Your task to perform on an android device: make emails show in primary in the gmail app Image 0: 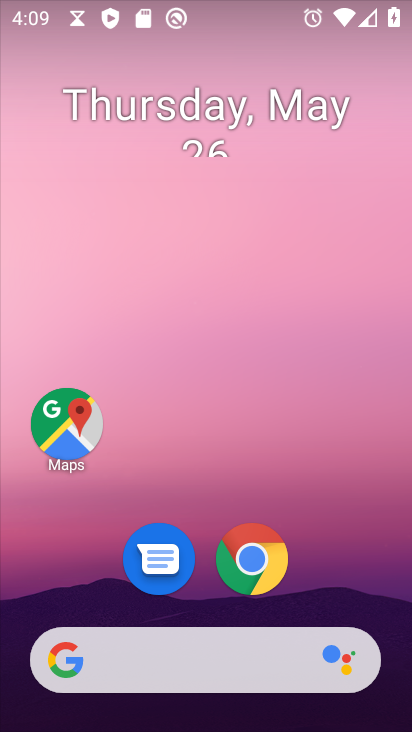
Step 0: press home button
Your task to perform on an android device: make emails show in primary in the gmail app Image 1: 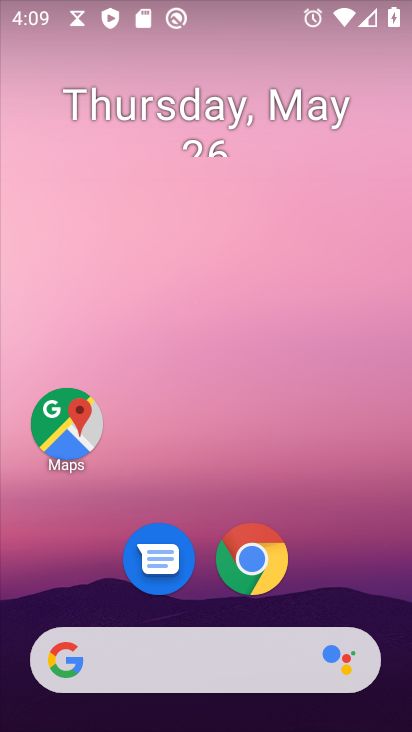
Step 1: drag from (340, 450) to (198, 21)
Your task to perform on an android device: make emails show in primary in the gmail app Image 2: 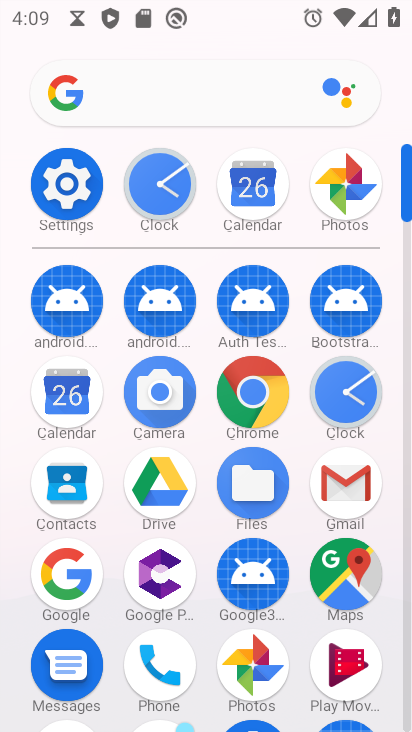
Step 2: click (359, 497)
Your task to perform on an android device: make emails show in primary in the gmail app Image 3: 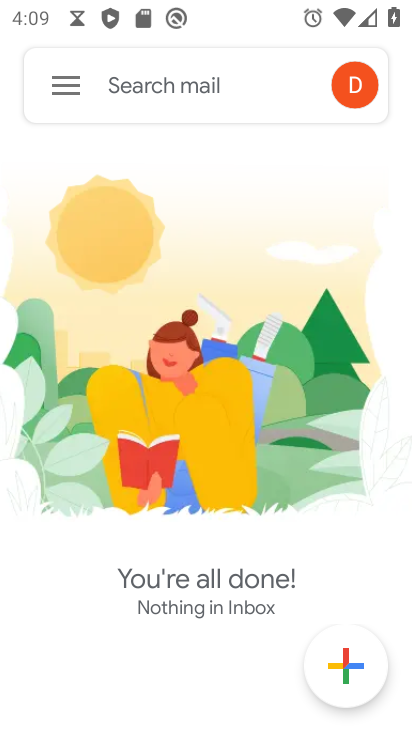
Step 3: click (70, 86)
Your task to perform on an android device: make emails show in primary in the gmail app Image 4: 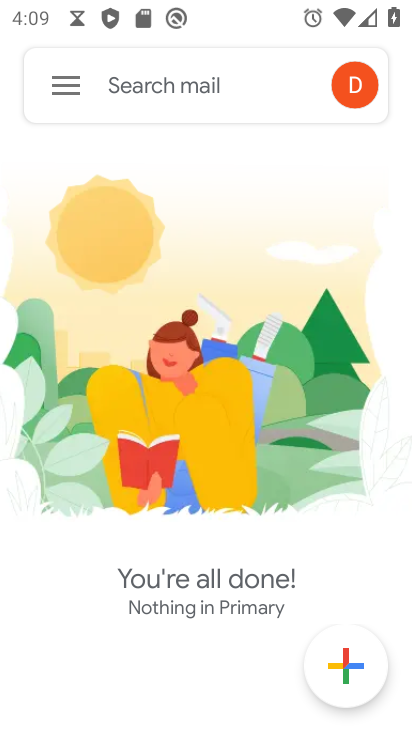
Step 4: click (63, 77)
Your task to perform on an android device: make emails show in primary in the gmail app Image 5: 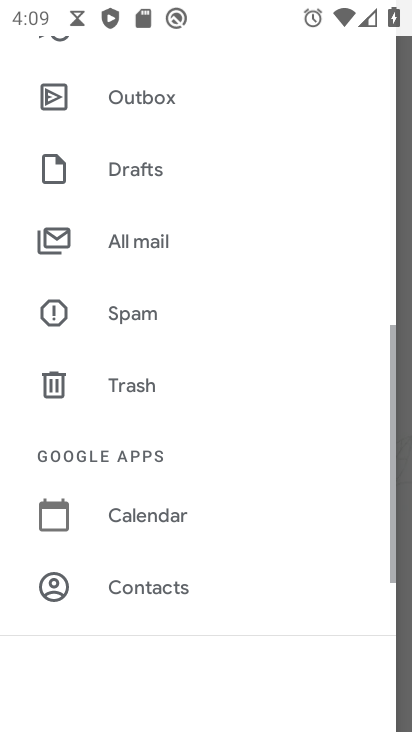
Step 5: drag from (179, 127) to (175, 703)
Your task to perform on an android device: make emails show in primary in the gmail app Image 6: 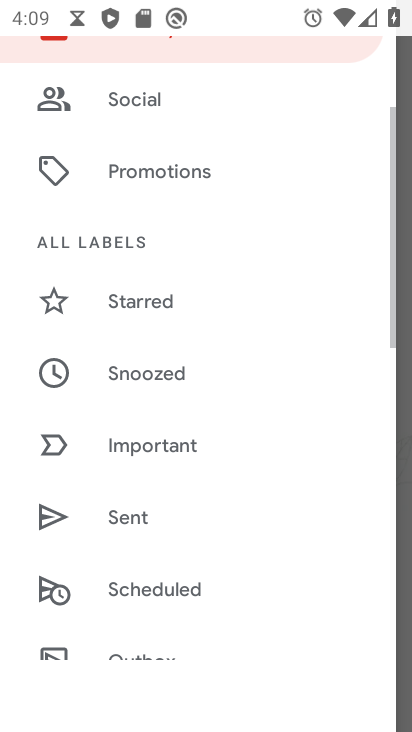
Step 6: drag from (196, 172) to (198, 717)
Your task to perform on an android device: make emails show in primary in the gmail app Image 7: 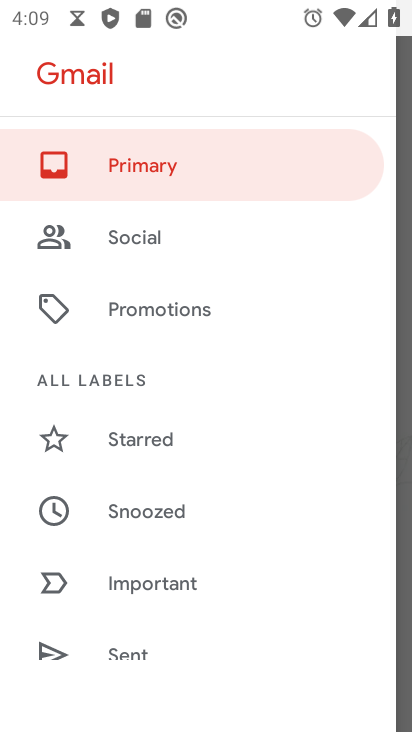
Step 7: click (181, 175)
Your task to perform on an android device: make emails show in primary in the gmail app Image 8: 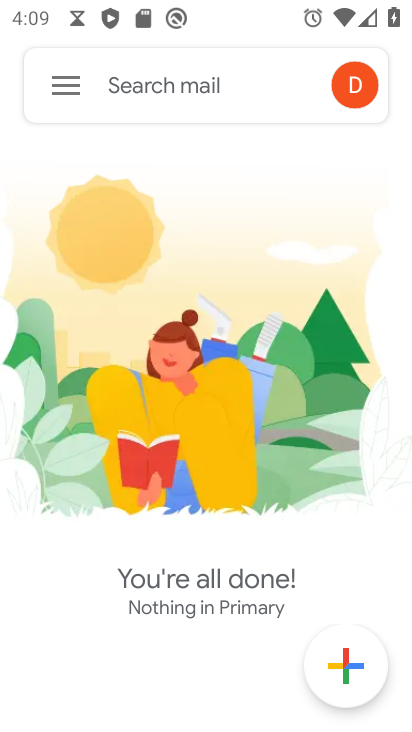
Step 8: task complete